Your task to perform on an android device: open sync settings in chrome Image 0: 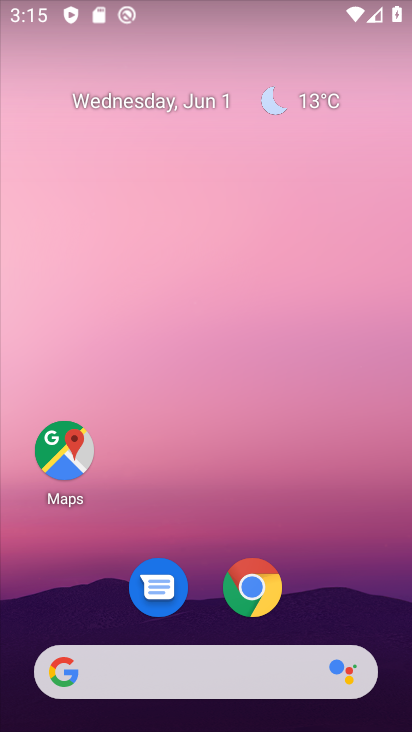
Step 0: drag from (360, 584) to (265, 16)
Your task to perform on an android device: open sync settings in chrome Image 1: 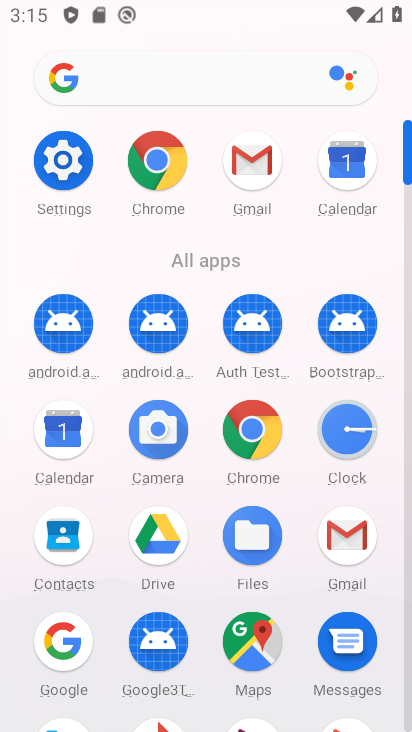
Step 1: drag from (0, 479) to (20, 211)
Your task to perform on an android device: open sync settings in chrome Image 2: 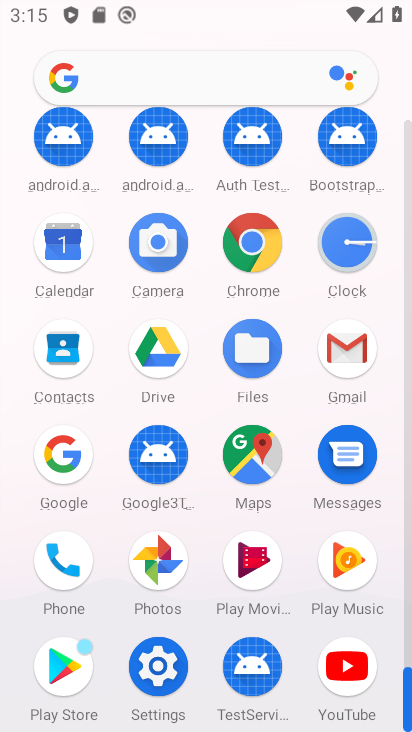
Step 2: click (251, 233)
Your task to perform on an android device: open sync settings in chrome Image 3: 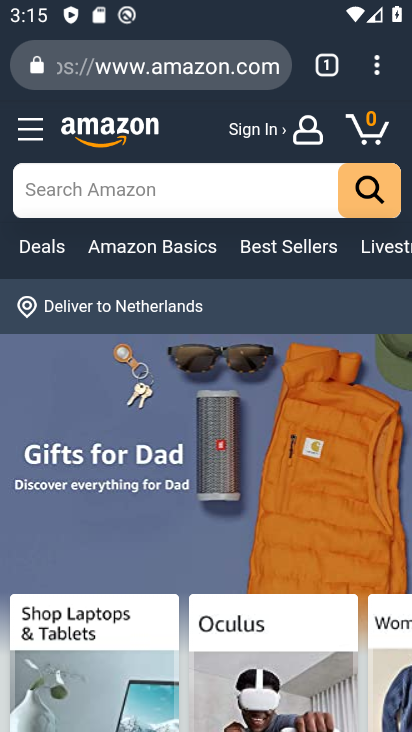
Step 3: drag from (380, 68) to (174, 619)
Your task to perform on an android device: open sync settings in chrome Image 4: 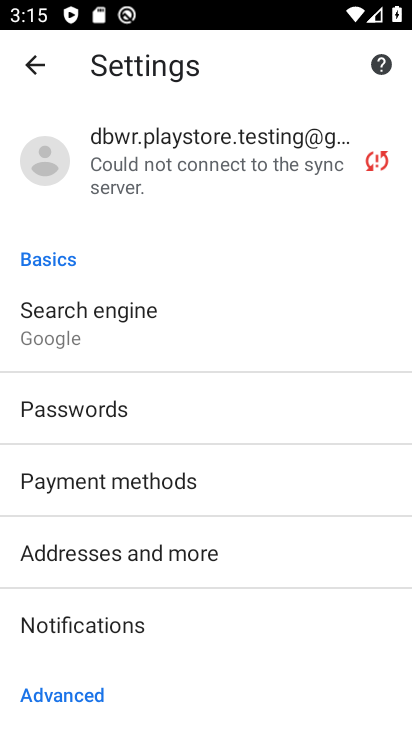
Step 4: click (164, 148)
Your task to perform on an android device: open sync settings in chrome Image 5: 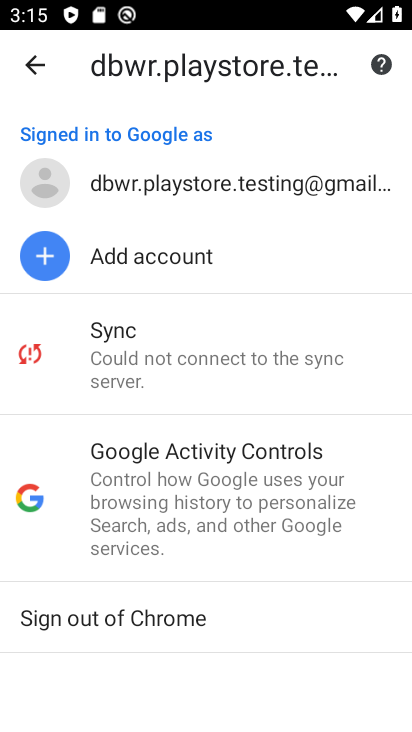
Step 5: click (152, 330)
Your task to perform on an android device: open sync settings in chrome Image 6: 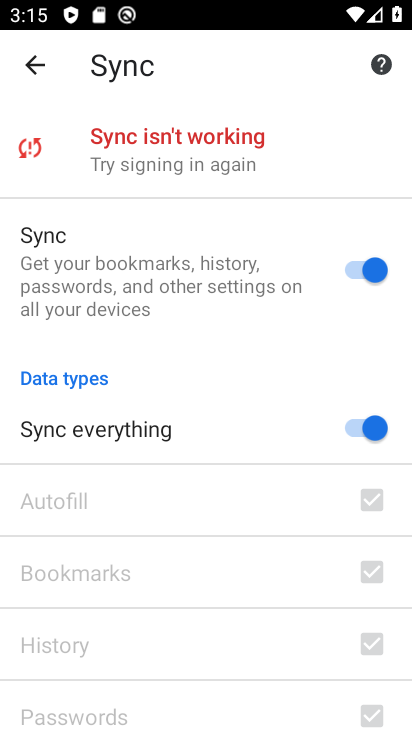
Step 6: task complete